Your task to perform on an android device: Open the calendar and show me this week's events? Image 0: 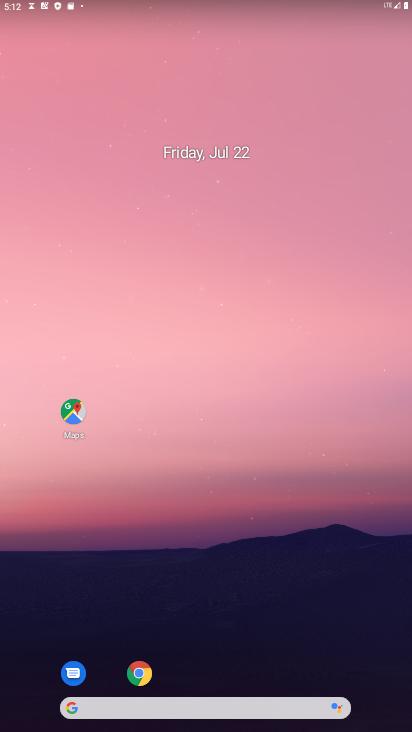
Step 0: press home button
Your task to perform on an android device: Open the calendar and show me this week's events? Image 1: 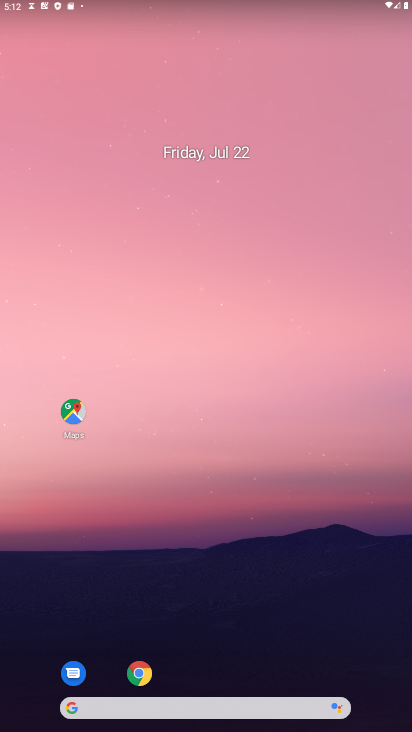
Step 1: drag from (261, 634) to (387, 79)
Your task to perform on an android device: Open the calendar and show me this week's events? Image 2: 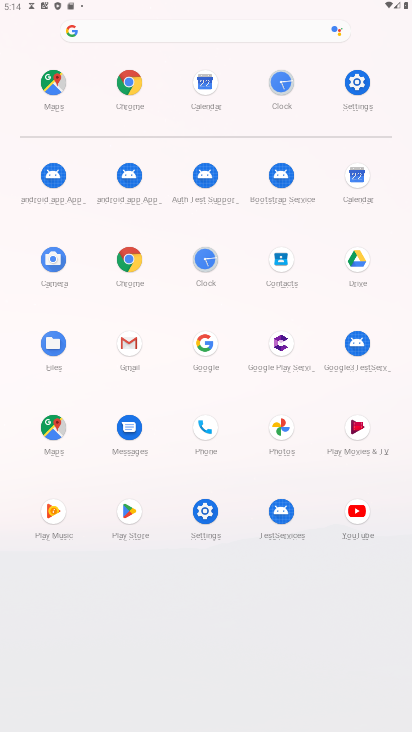
Step 2: click (354, 176)
Your task to perform on an android device: Open the calendar and show me this week's events? Image 3: 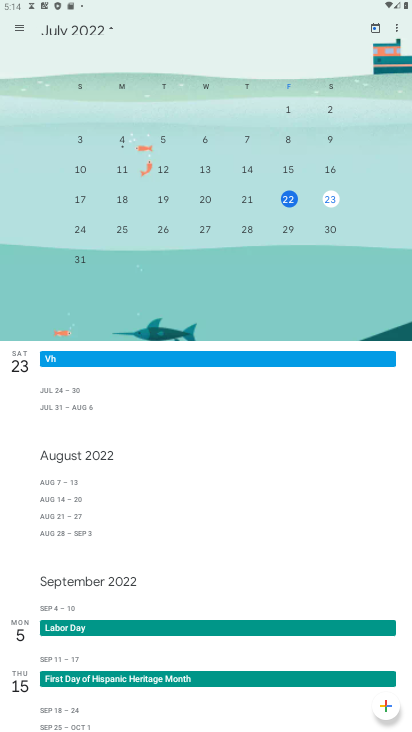
Step 3: click (112, 30)
Your task to perform on an android device: Open the calendar and show me this week's events? Image 4: 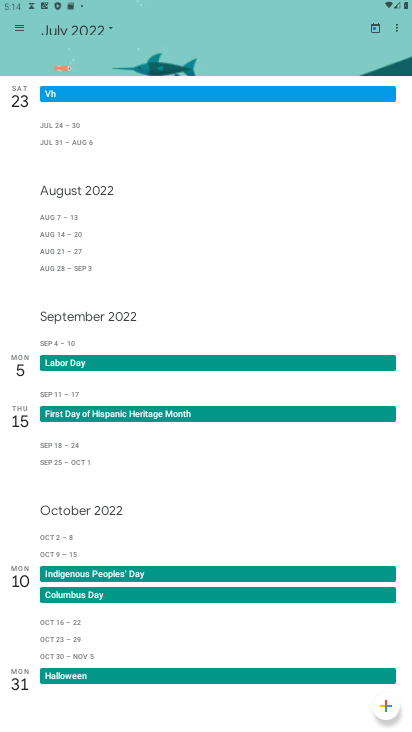
Step 4: click (100, 34)
Your task to perform on an android device: Open the calendar and show me this week's events? Image 5: 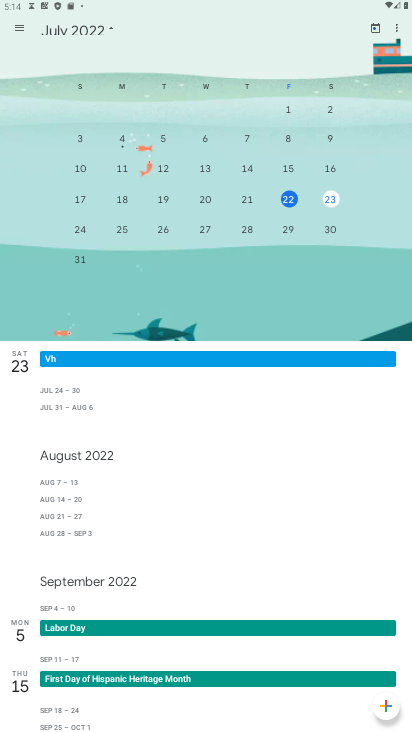
Step 5: click (25, 28)
Your task to perform on an android device: Open the calendar and show me this week's events? Image 6: 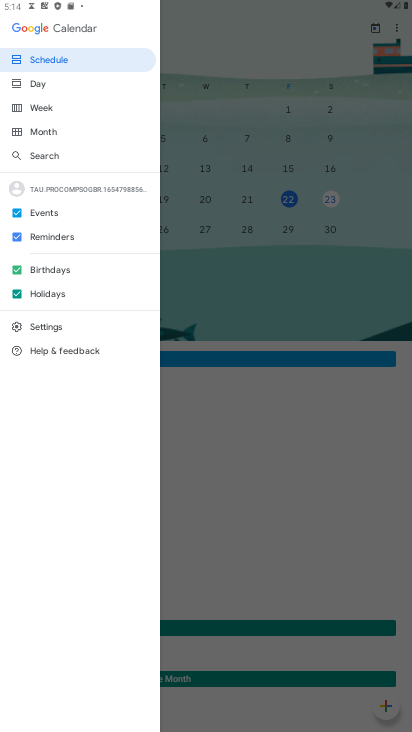
Step 6: click (38, 105)
Your task to perform on an android device: Open the calendar and show me this week's events? Image 7: 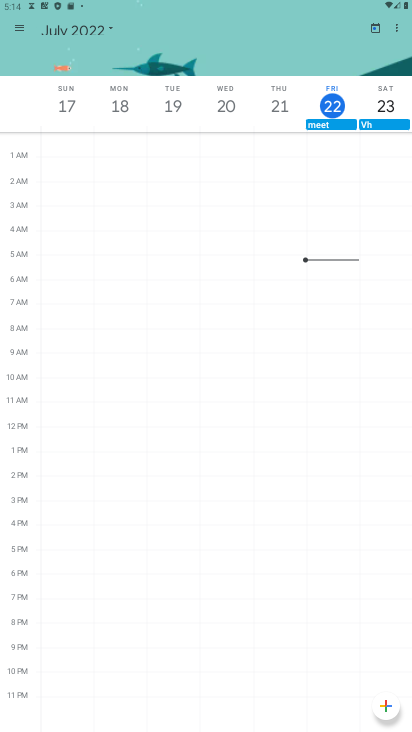
Step 7: task complete